Your task to perform on an android device: Go to display settings Image 0: 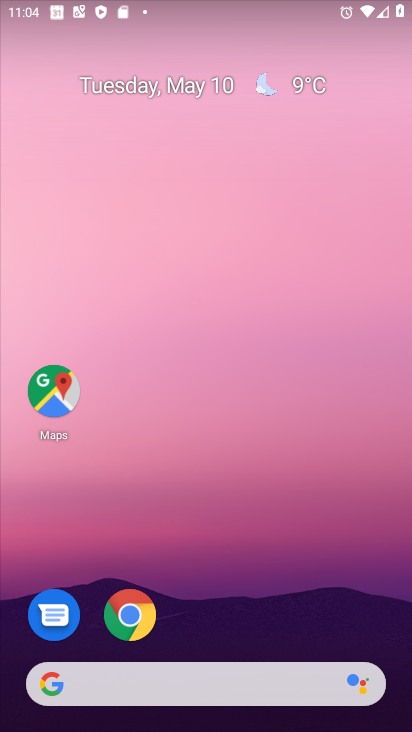
Step 0: drag from (235, 602) to (269, 93)
Your task to perform on an android device: Go to display settings Image 1: 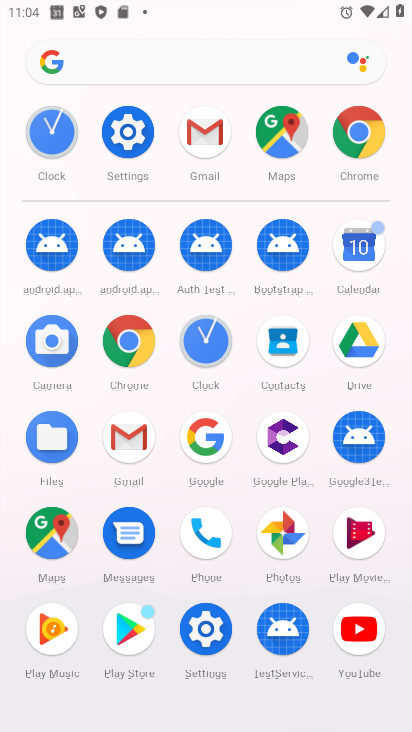
Step 1: click (126, 131)
Your task to perform on an android device: Go to display settings Image 2: 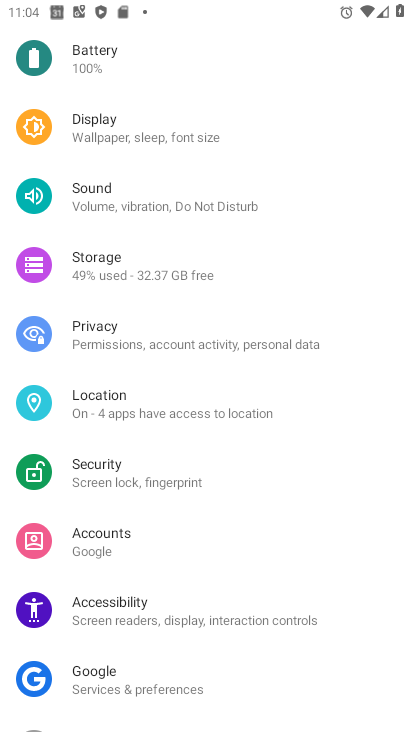
Step 2: click (130, 113)
Your task to perform on an android device: Go to display settings Image 3: 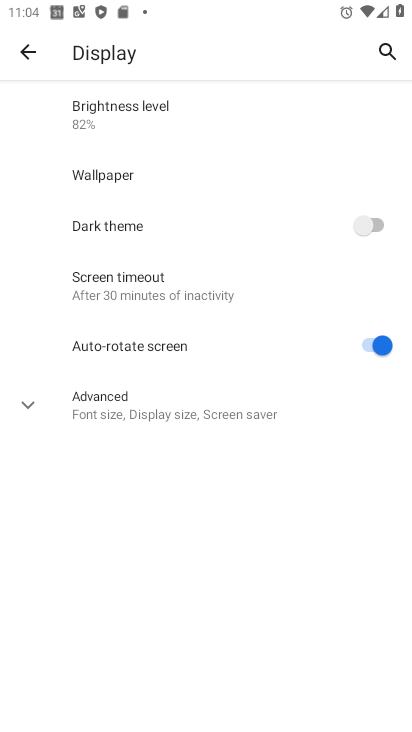
Step 3: click (31, 401)
Your task to perform on an android device: Go to display settings Image 4: 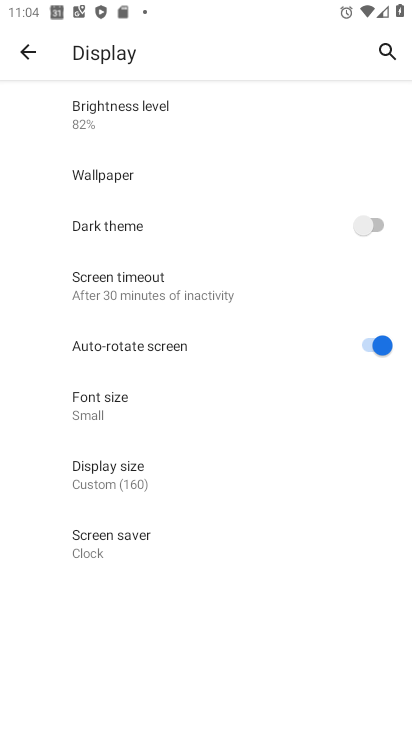
Step 4: task complete